Your task to perform on an android device: What's the weather going to be tomorrow? Image 0: 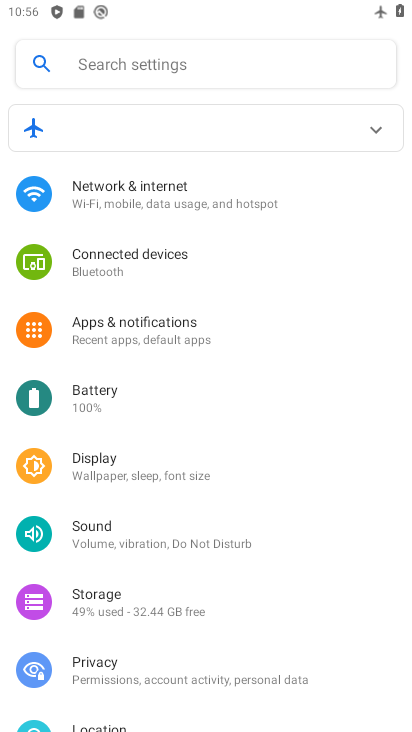
Step 0: press home button
Your task to perform on an android device: What's the weather going to be tomorrow? Image 1: 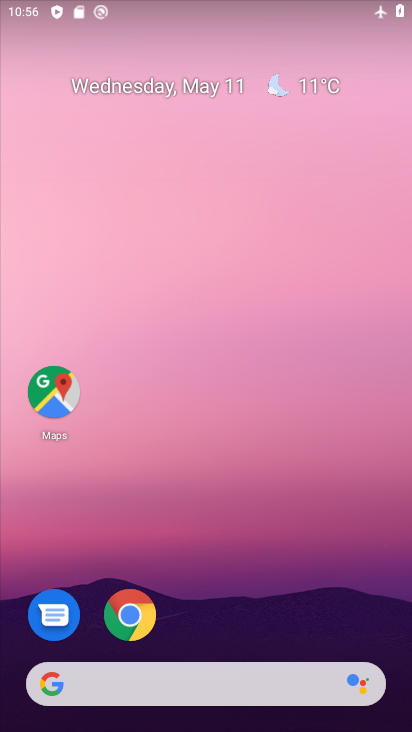
Step 1: click (309, 84)
Your task to perform on an android device: What's the weather going to be tomorrow? Image 2: 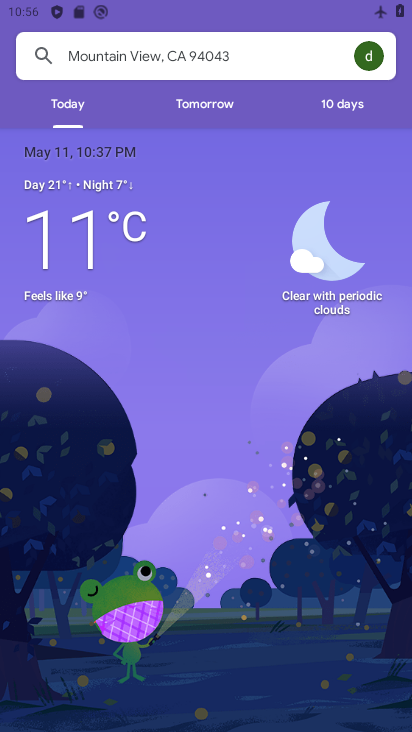
Step 2: click (219, 113)
Your task to perform on an android device: What's the weather going to be tomorrow? Image 3: 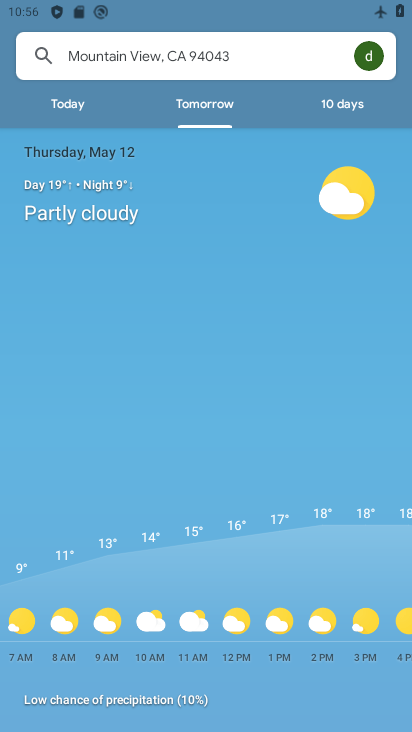
Step 3: task complete